Your task to perform on an android device: Check the weather Image 0: 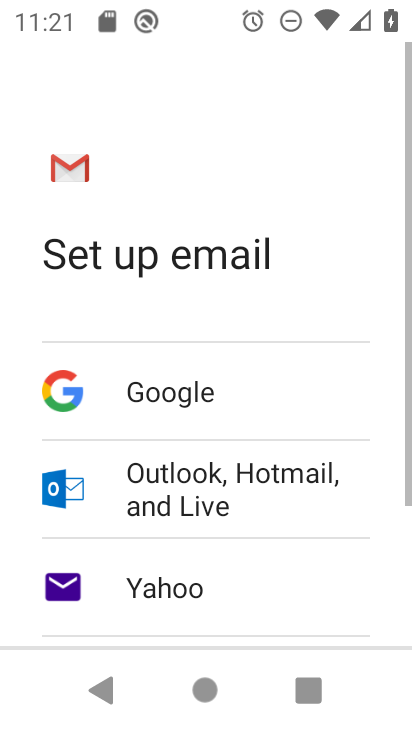
Step 0: press home button
Your task to perform on an android device: Check the weather Image 1: 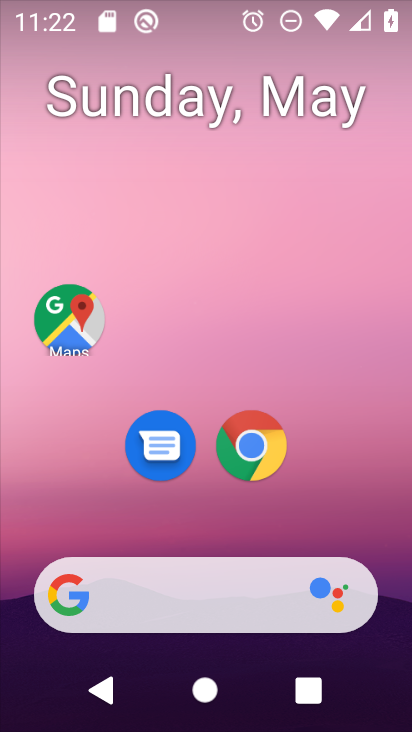
Step 1: drag from (214, 590) to (301, 131)
Your task to perform on an android device: Check the weather Image 2: 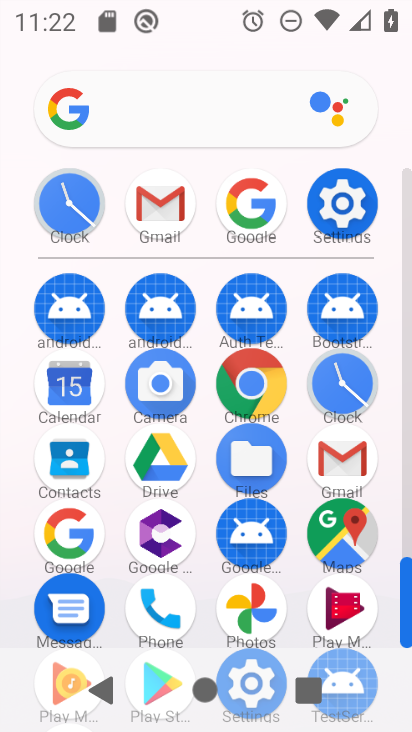
Step 2: drag from (203, 495) to (228, 325)
Your task to perform on an android device: Check the weather Image 3: 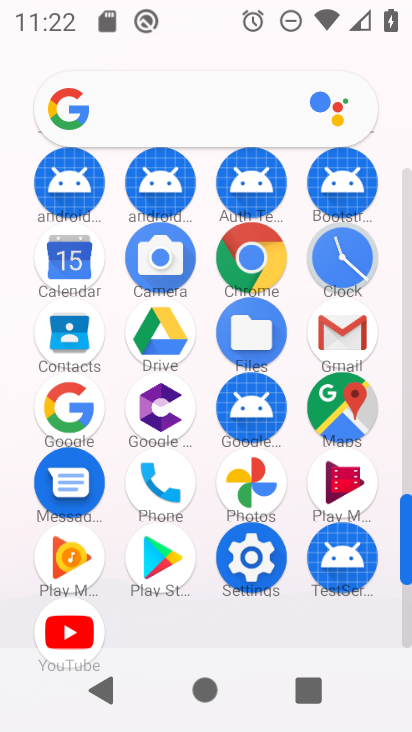
Step 3: drag from (183, 491) to (196, 307)
Your task to perform on an android device: Check the weather Image 4: 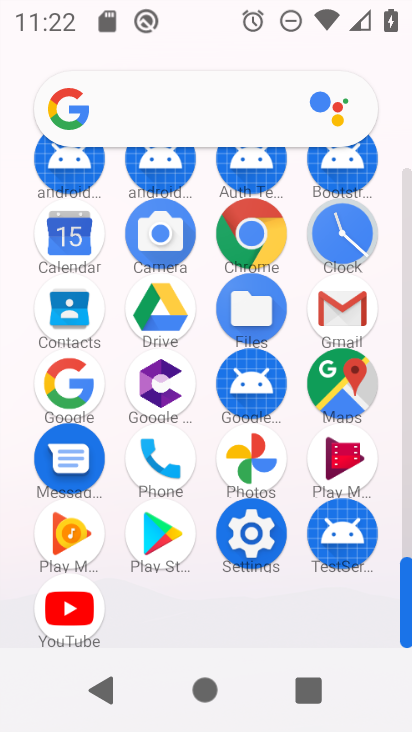
Step 4: click (72, 393)
Your task to perform on an android device: Check the weather Image 5: 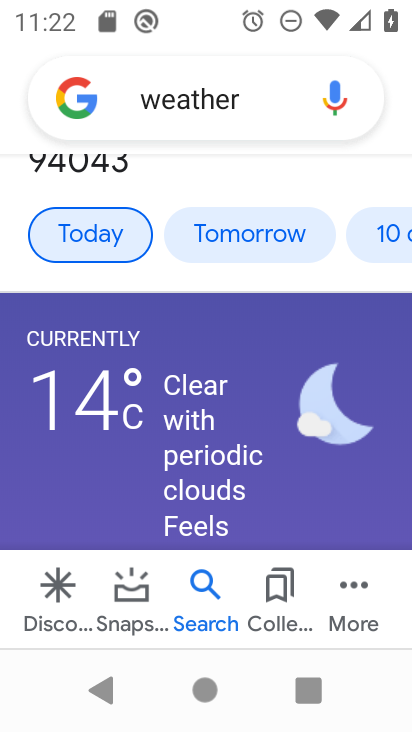
Step 5: task complete